Your task to perform on an android device: show emergency info Image 0: 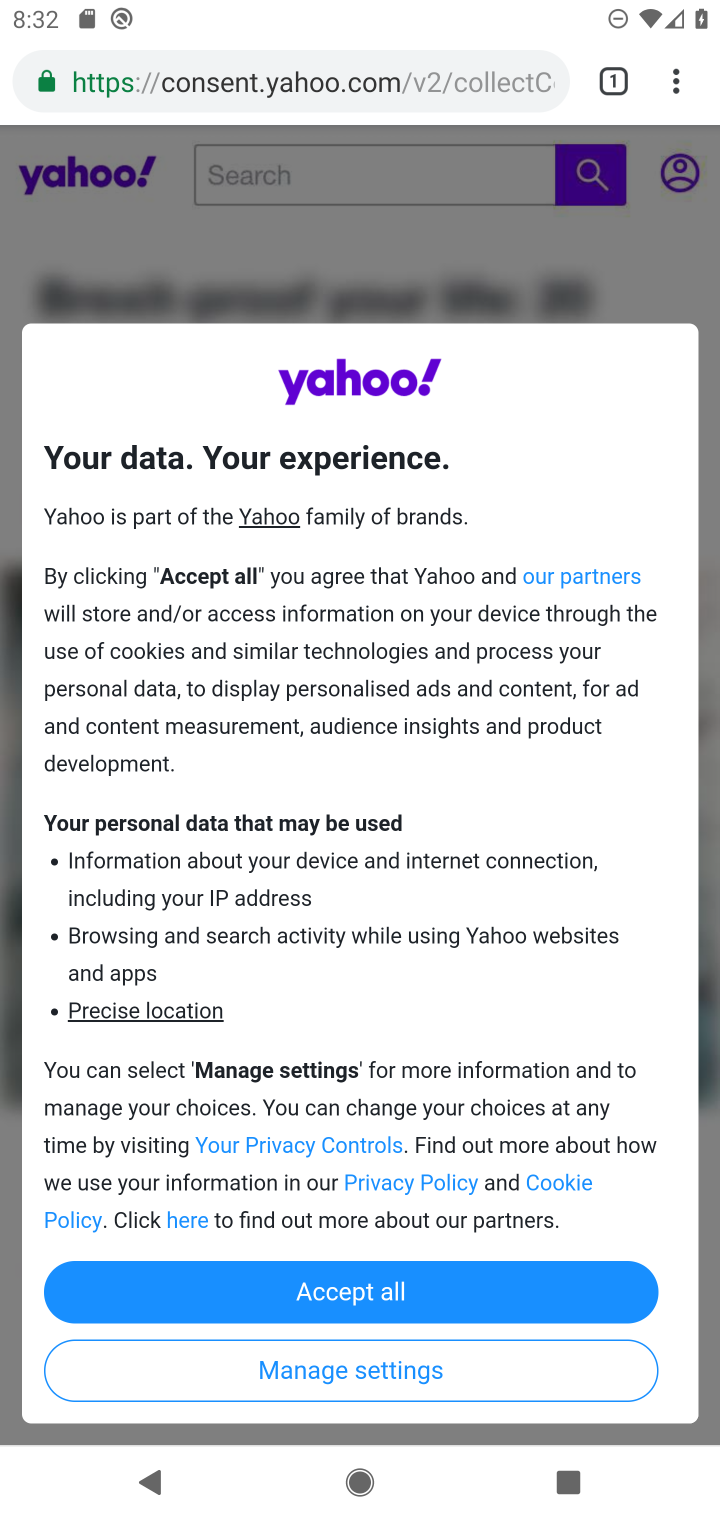
Step 0: press home button
Your task to perform on an android device: show emergency info Image 1: 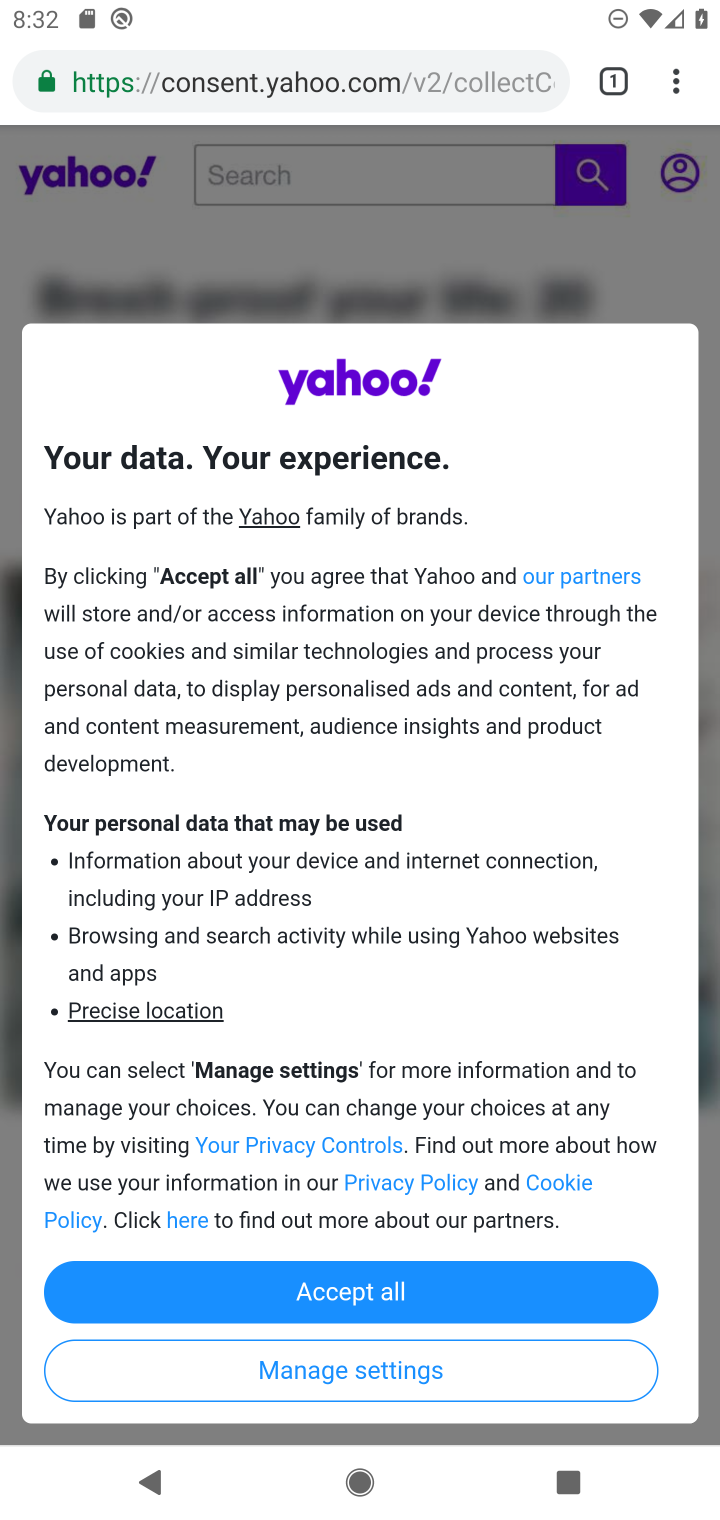
Step 1: click (704, 822)
Your task to perform on an android device: show emergency info Image 2: 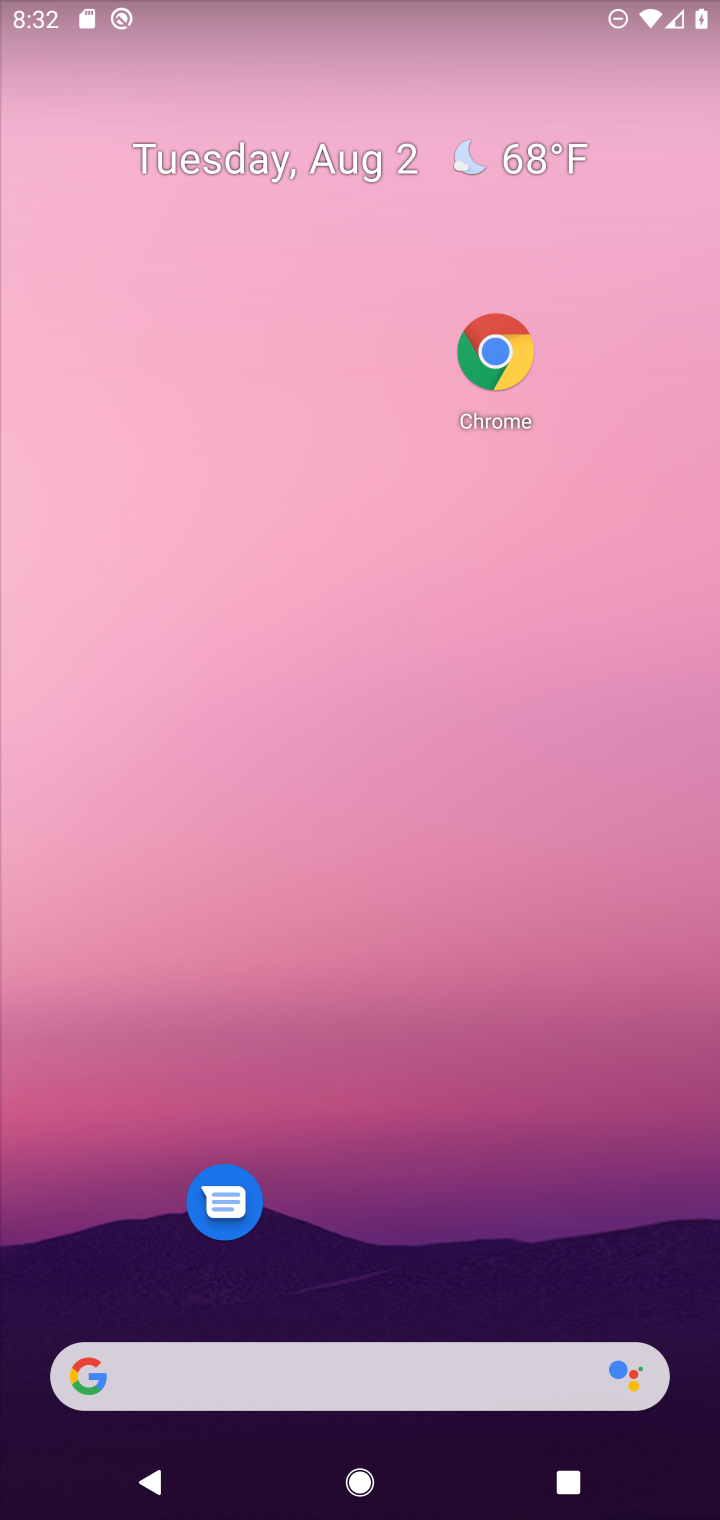
Step 2: drag from (338, 1216) to (292, 101)
Your task to perform on an android device: show emergency info Image 3: 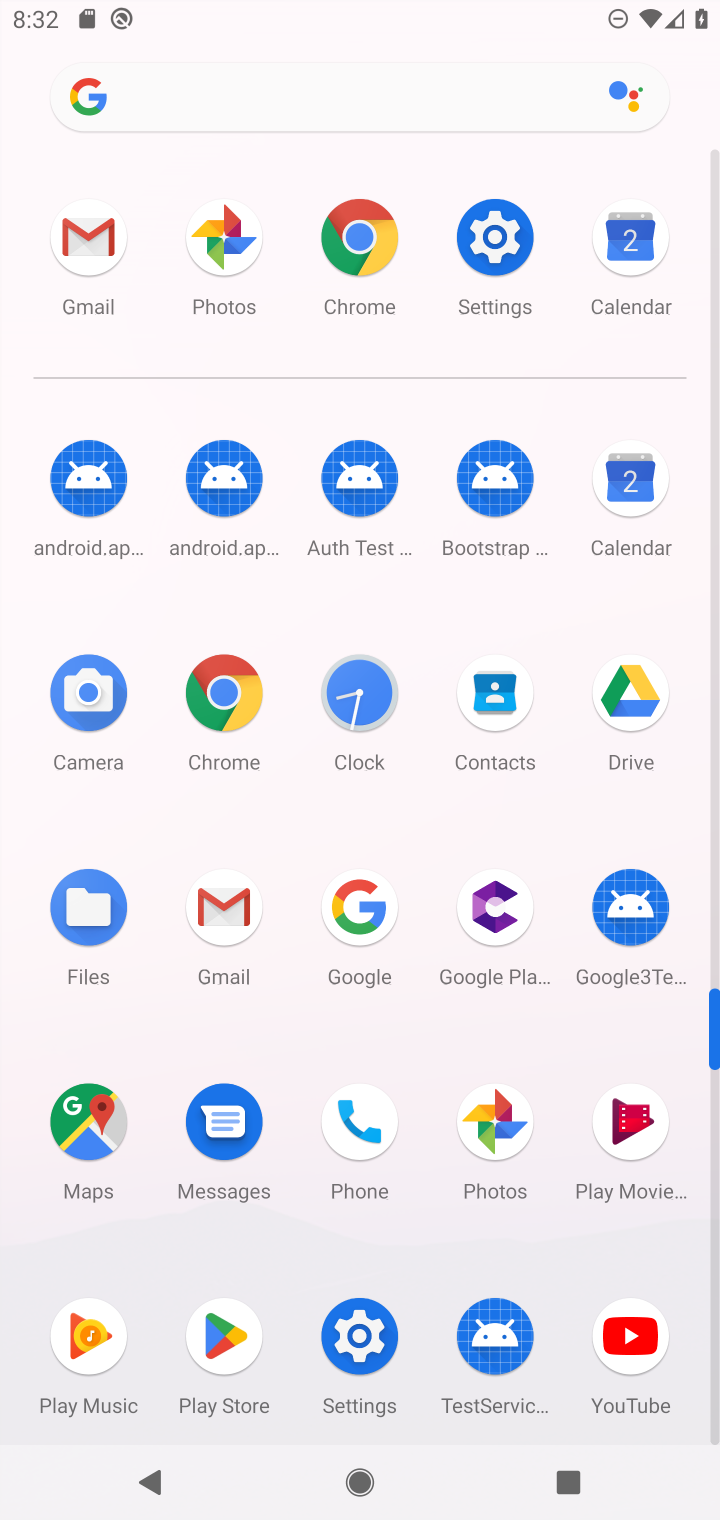
Step 3: click (497, 243)
Your task to perform on an android device: show emergency info Image 4: 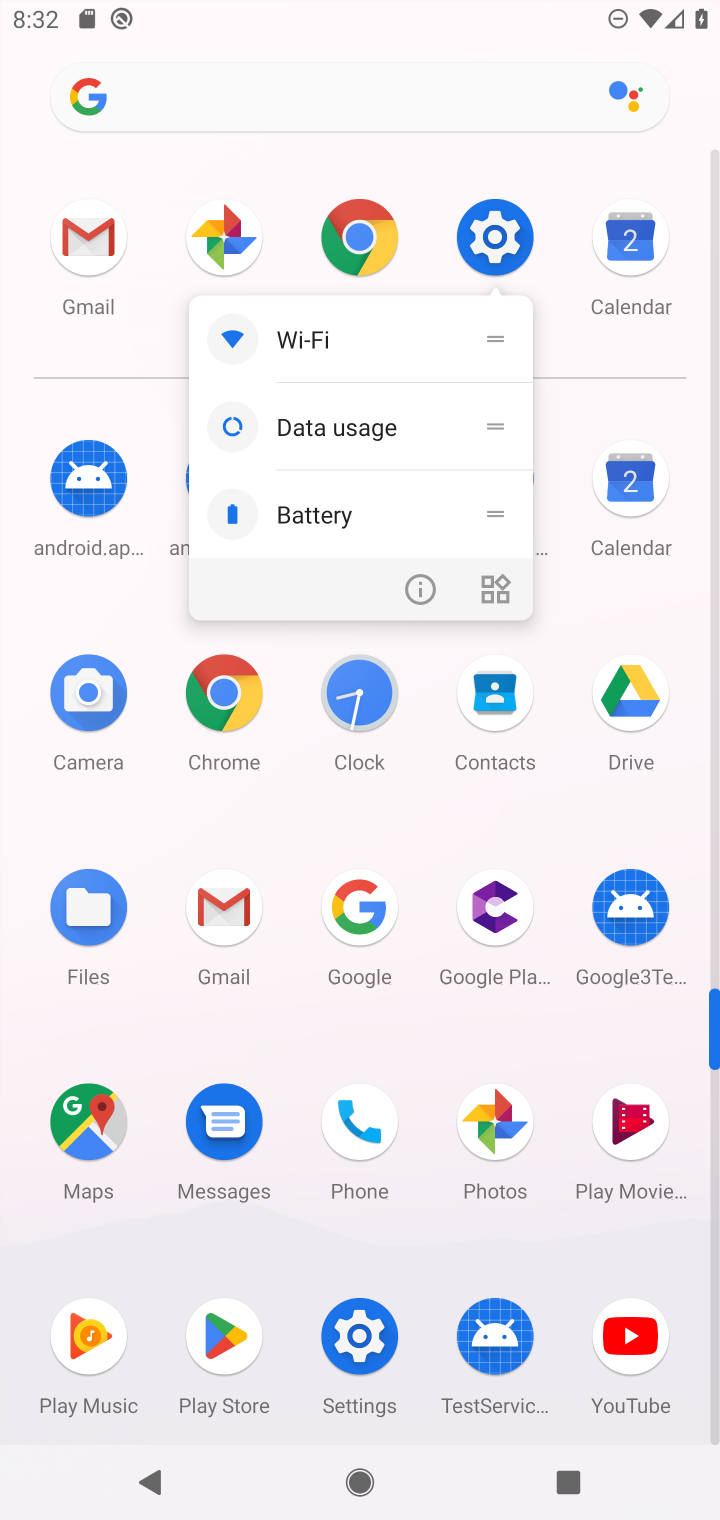
Step 4: click (497, 243)
Your task to perform on an android device: show emergency info Image 5: 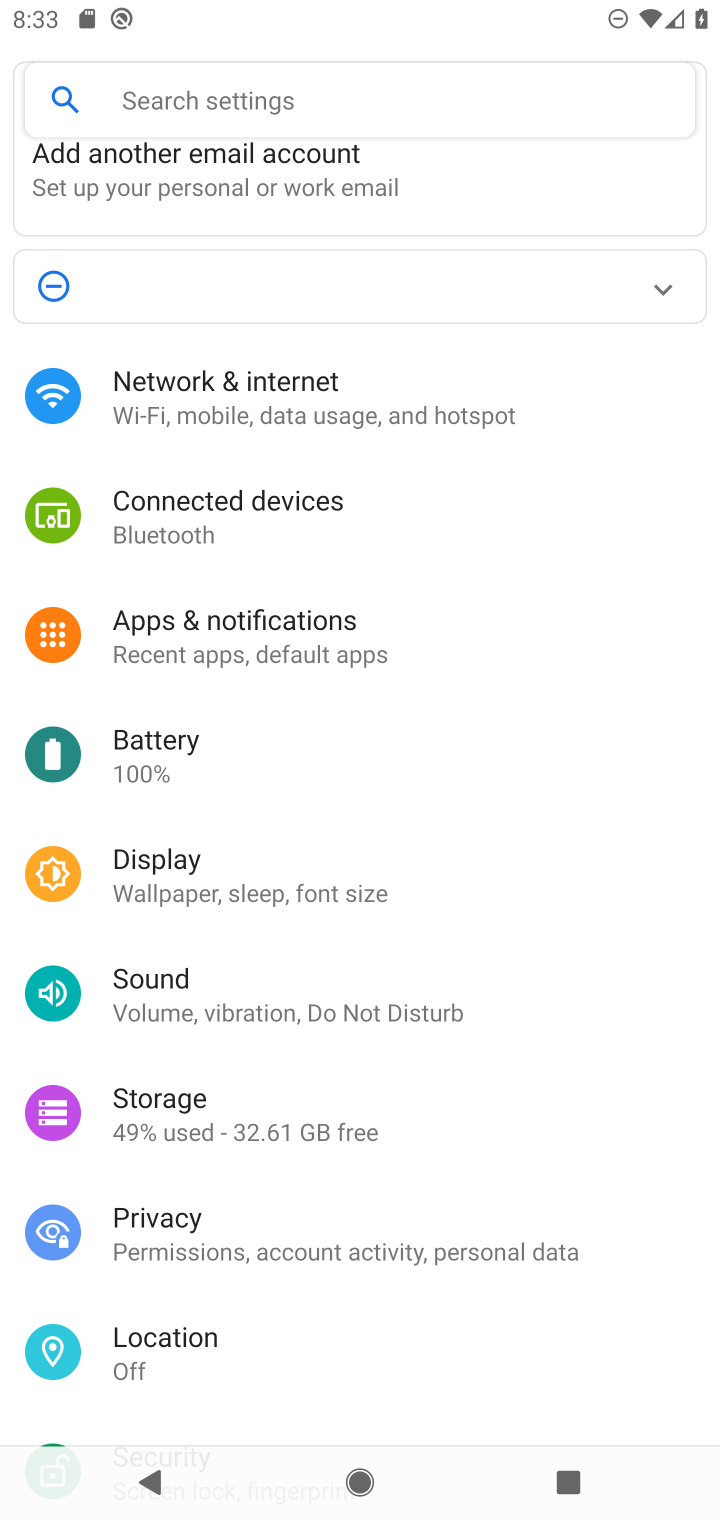
Step 5: drag from (604, 1199) to (640, 402)
Your task to perform on an android device: show emergency info Image 6: 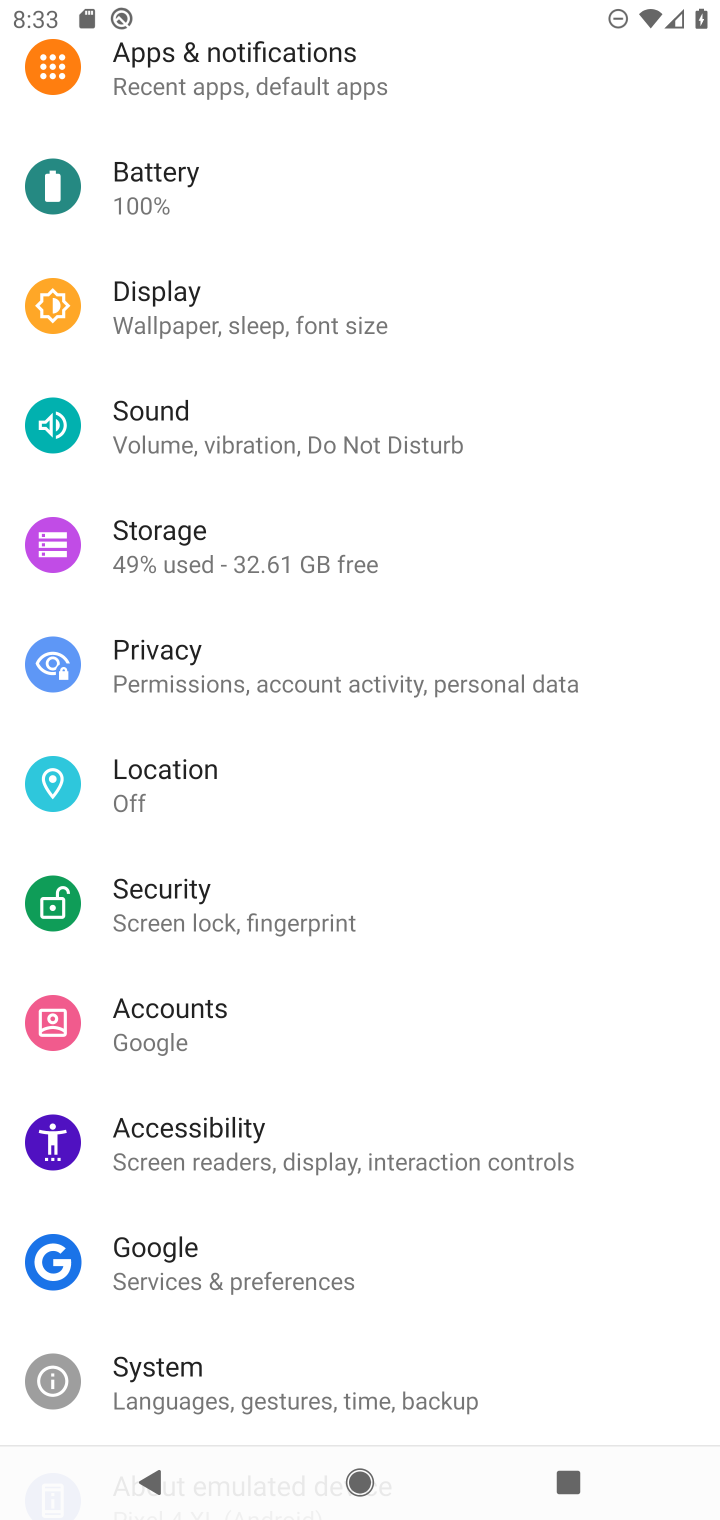
Step 6: drag from (660, 1231) to (684, 301)
Your task to perform on an android device: show emergency info Image 7: 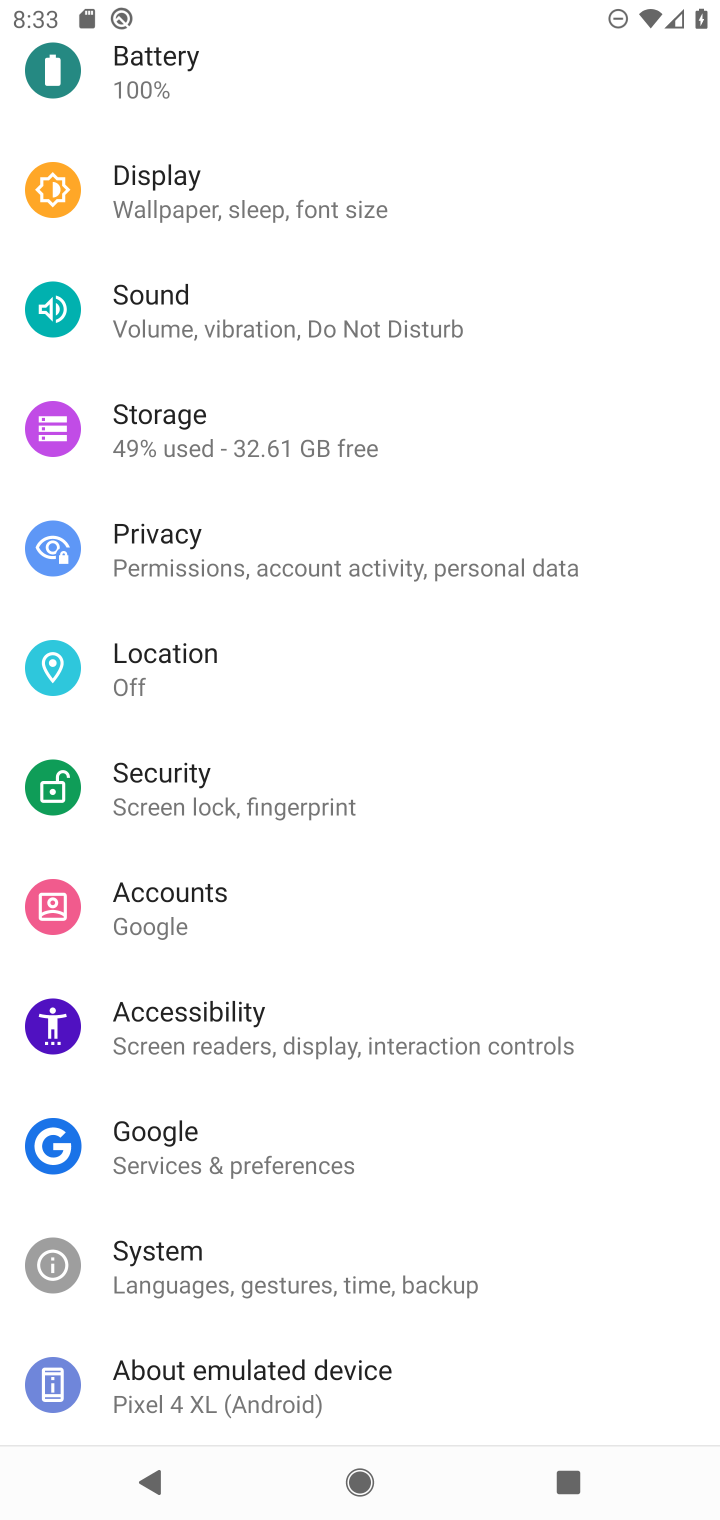
Step 7: click (170, 1381)
Your task to perform on an android device: show emergency info Image 8: 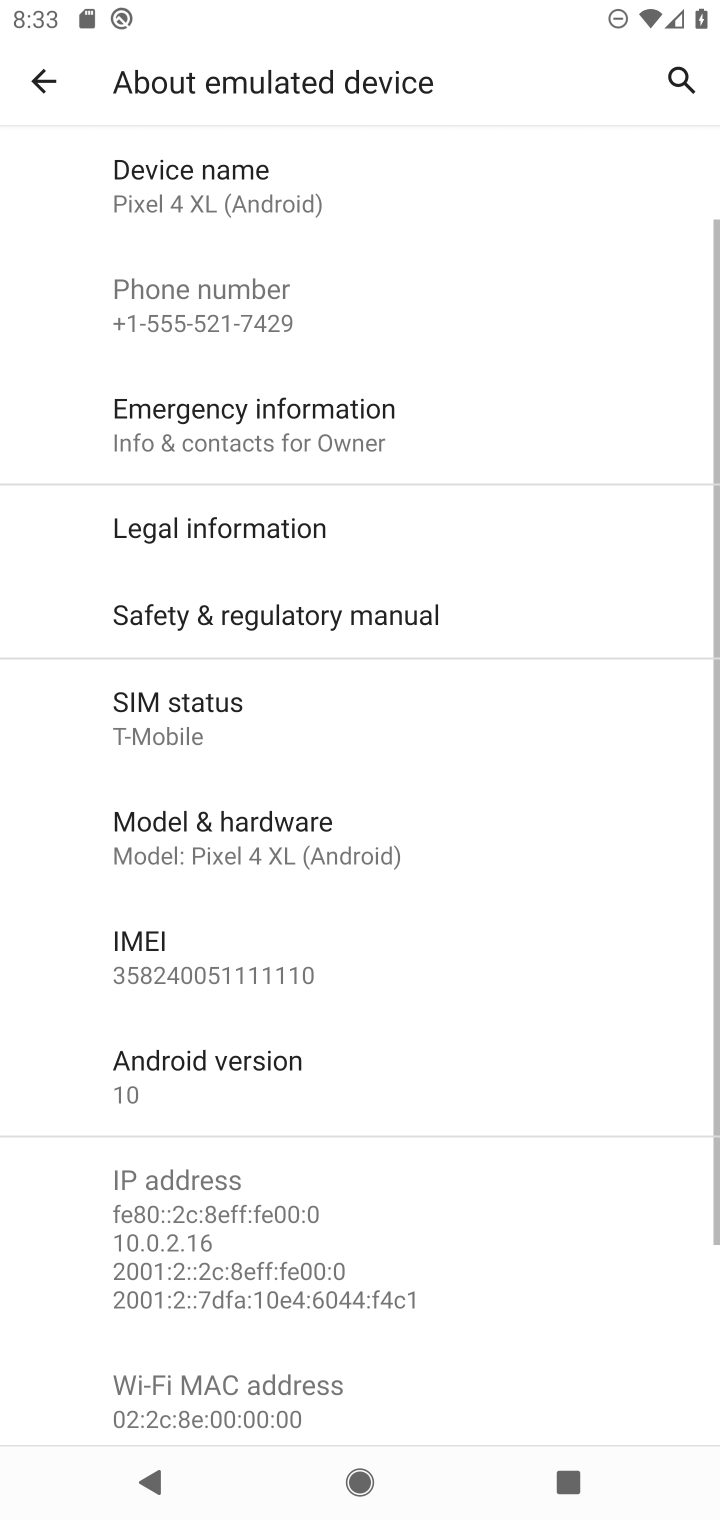
Step 8: click (226, 440)
Your task to perform on an android device: show emergency info Image 9: 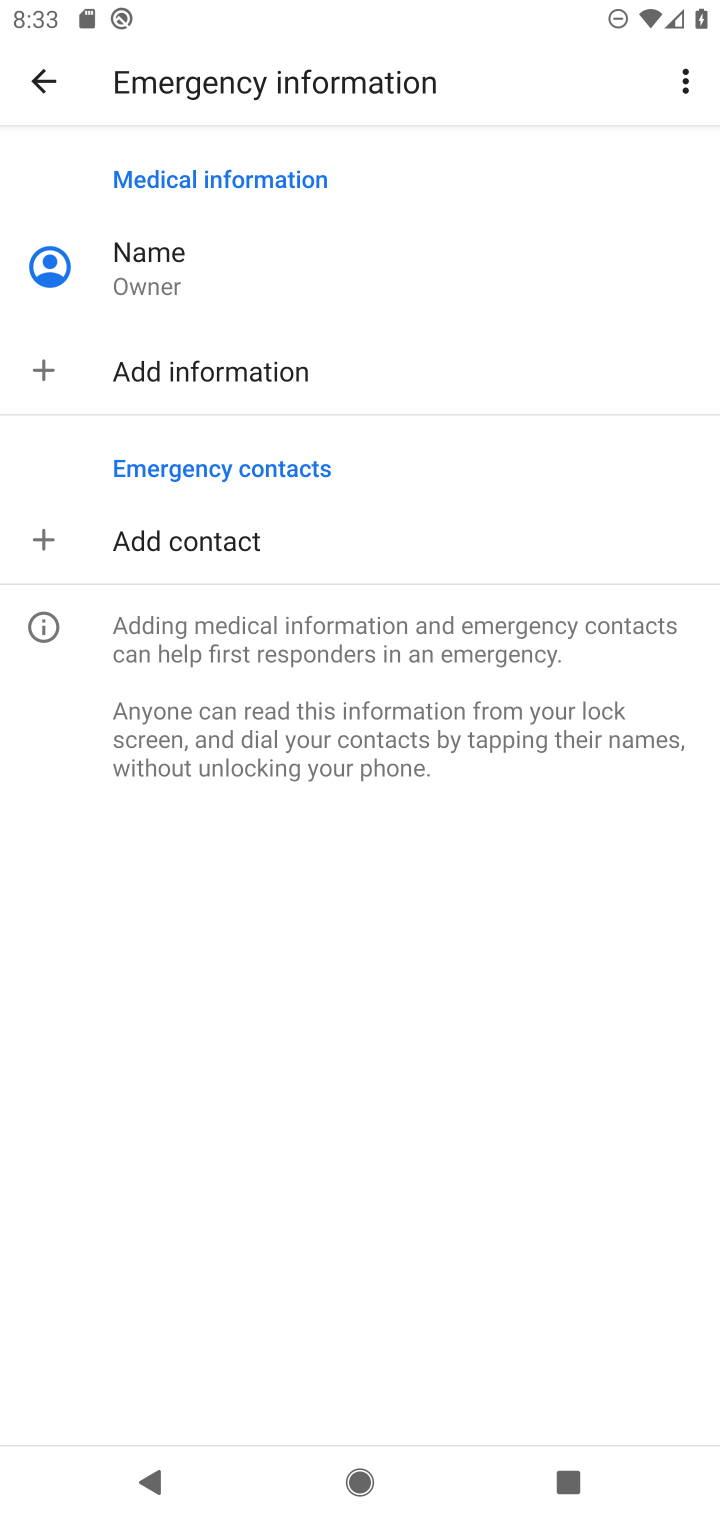
Step 9: task complete